Your task to perform on an android device: change the clock style Image 0: 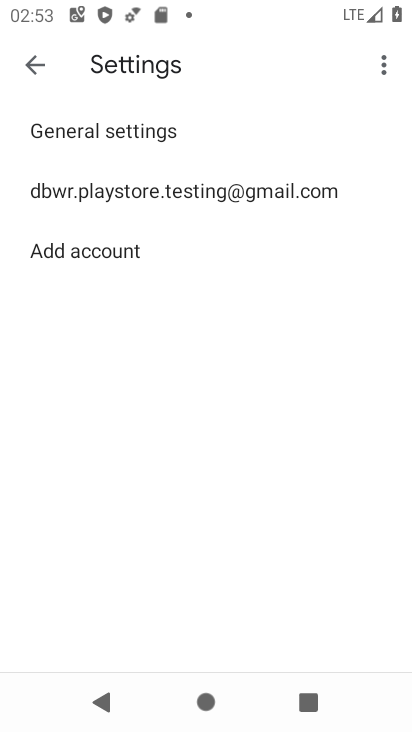
Step 0: press home button
Your task to perform on an android device: change the clock style Image 1: 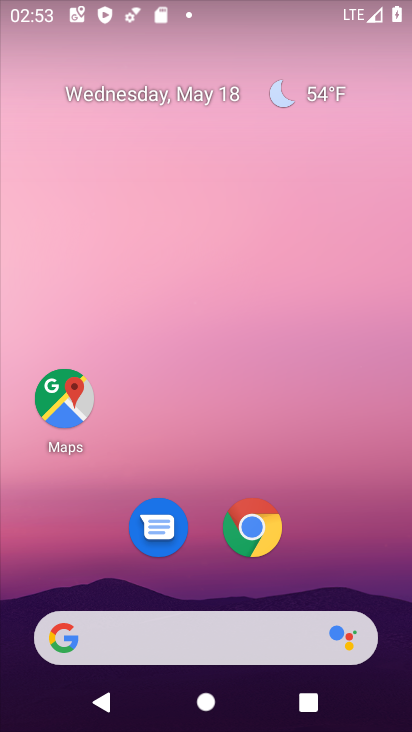
Step 1: drag from (256, 610) to (195, 10)
Your task to perform on an android device: change the clock style Image 2: 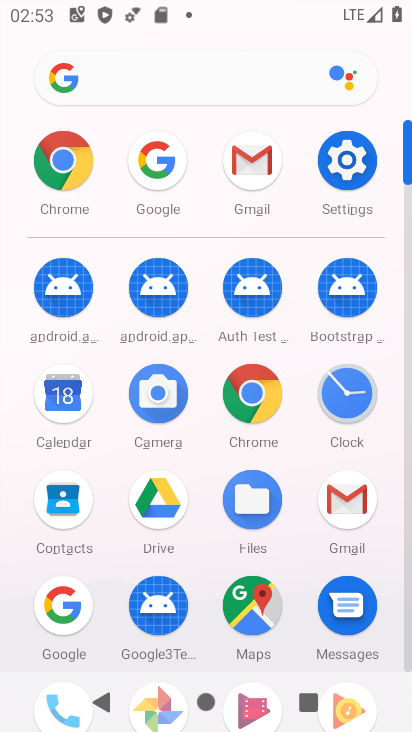
Step 2: click (329, 421)
Your task to perform on an android device: change the clock style Image 3: 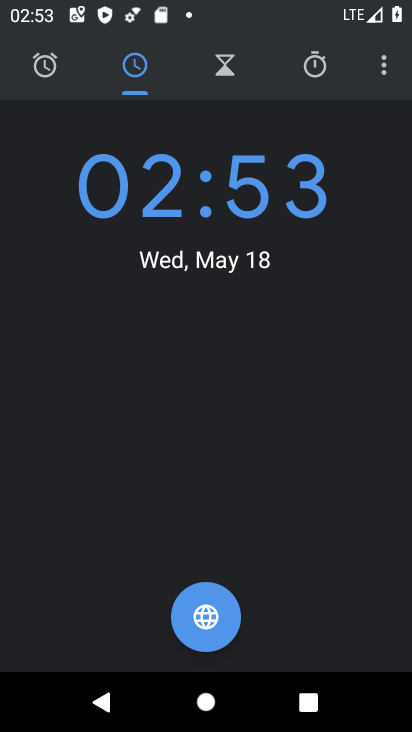
Step 3: click (385, 61)
Your task to perform on an android device: change the clock style Image 4: 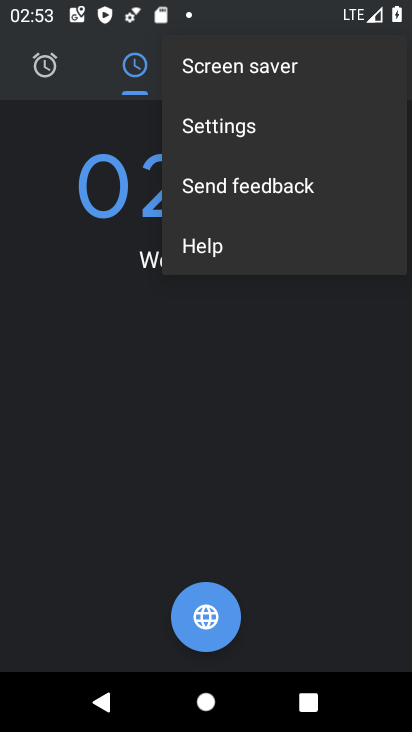
Step 4: click (261, 112)
Your task to perform on an android device: change the clock style Image 5: 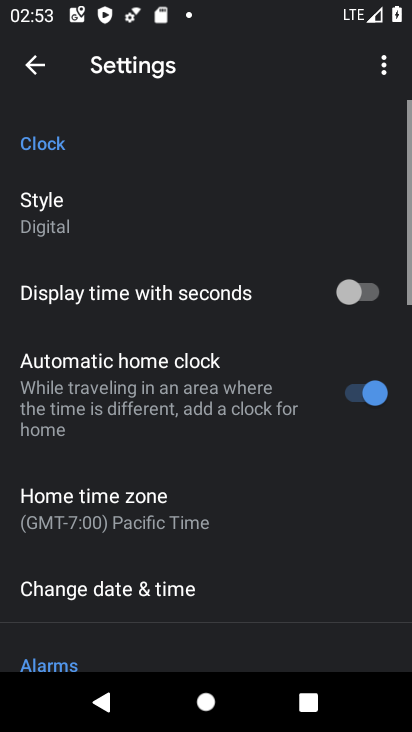
Step 5: click (112, 217)
Your task to perform on an android device: change the clock style Image 6: 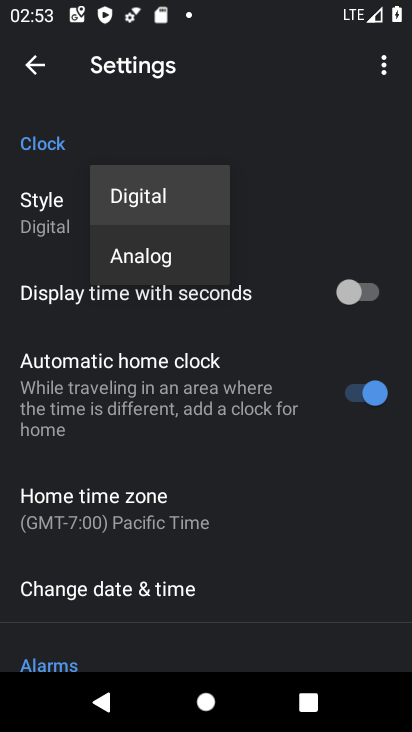
Step 6: click (177, 261)
Your task to perform on an android device: change the clock style Image 7: 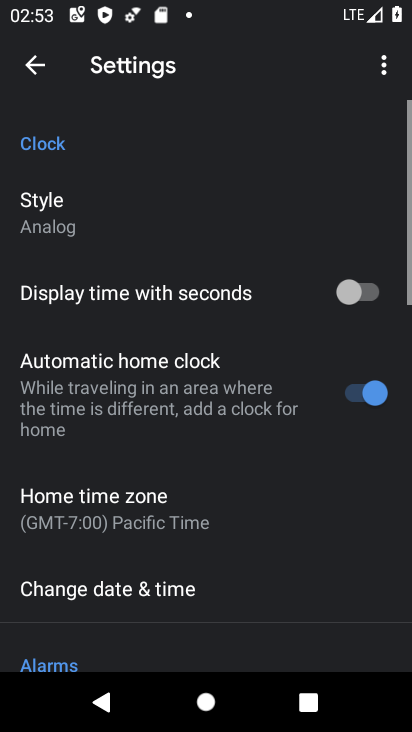
Step 7: task complete